Your task to perform on an android device: see sites visited before in the chrome app Image 0: 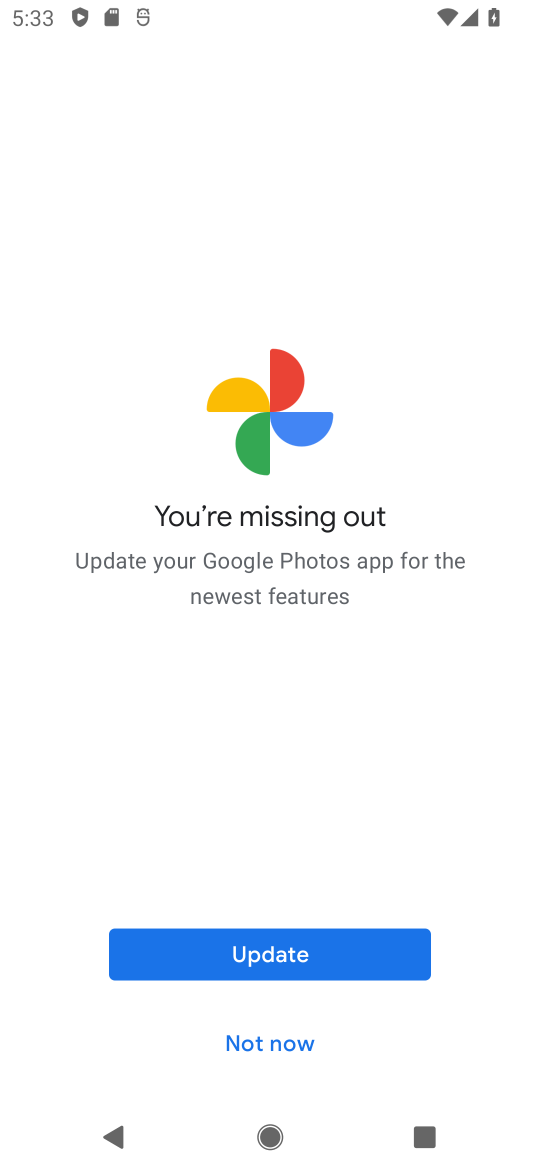
Step 0: press home button
Your task to perform on an android device: see sites visited before in the chrome app Image 1: 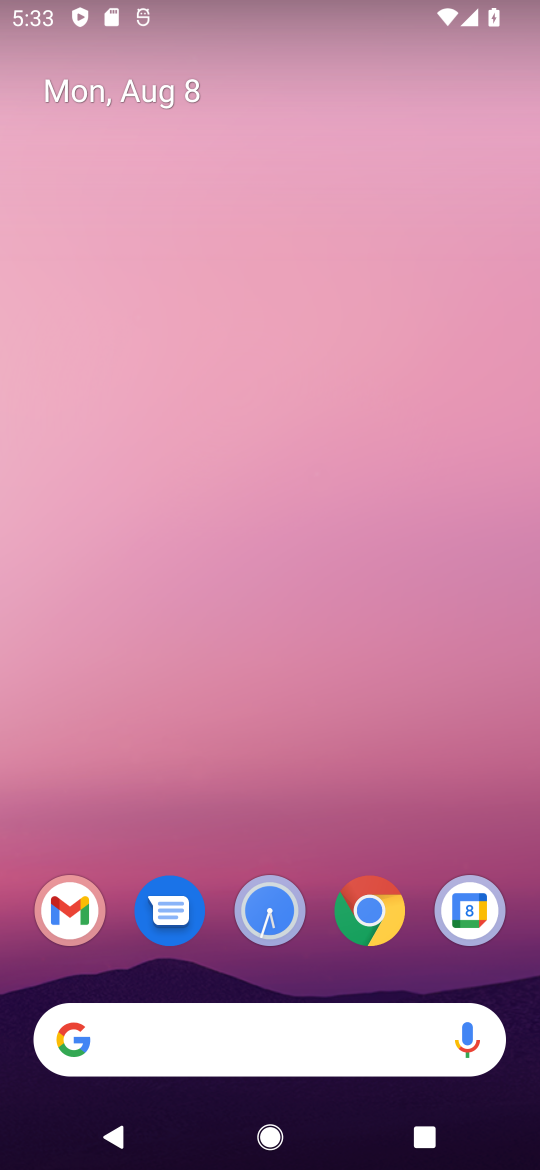
Step 1: click (373, 916)
Your task to perform on an android device: see sites visited before in the chrome app Image 2: 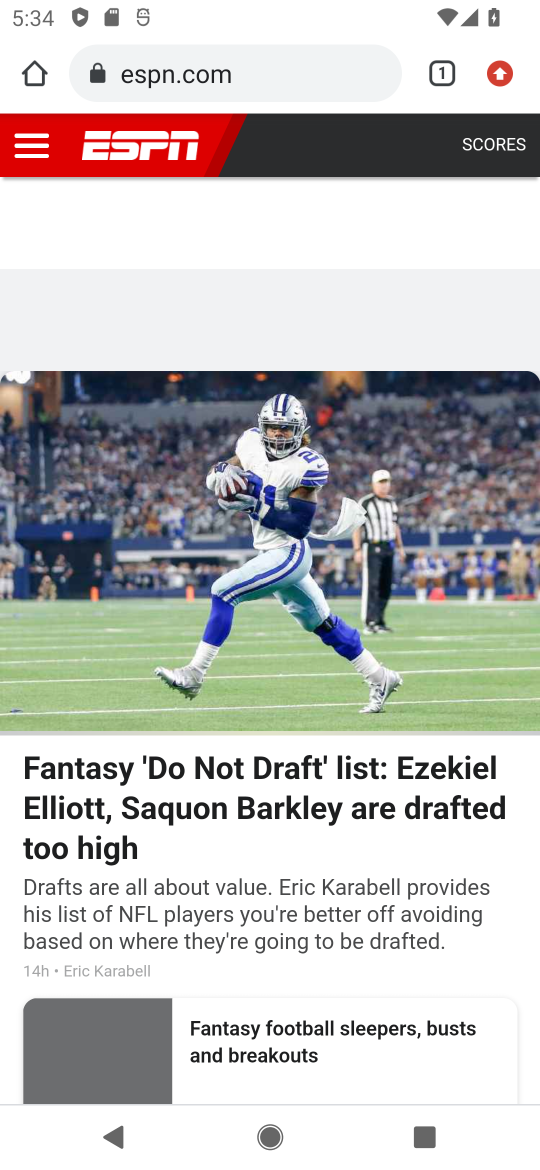
Step 2: click (498, 75)
Your task to perform on an android device: see sites visited before in the chrome app Image 3: 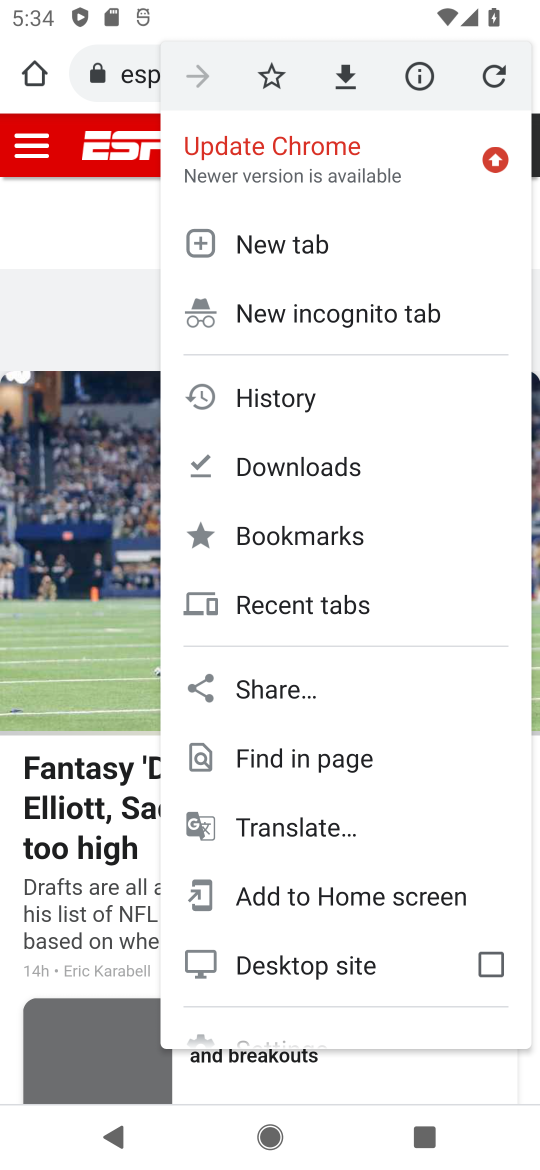
Step 3: click (282, 408)
Your task to perform on an android device: see sites visited before in the chrome app Image 4: 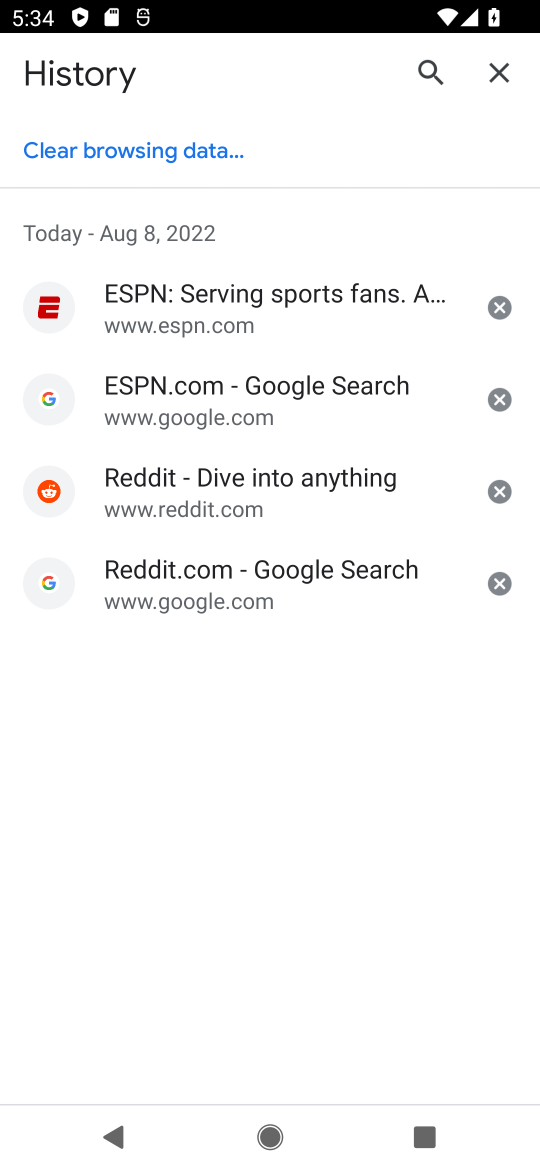
Step 4: task complete